Your task to perform on an android device: Open wifi settings Image 0: 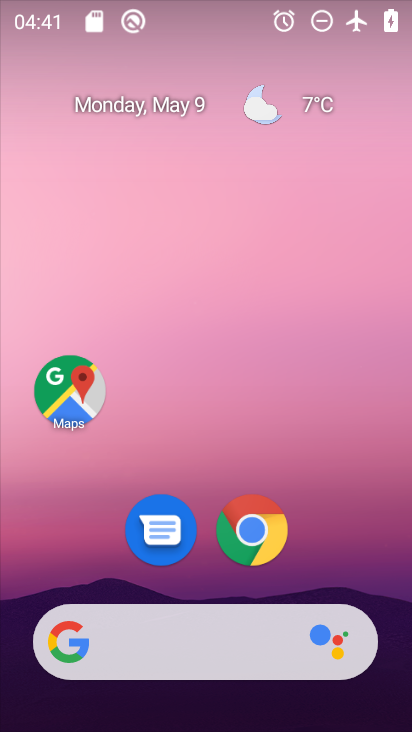
Step 0: drag from (205, 583) to (220, 105)
Your task to perform on an android device: Open wifi settings Image 1: 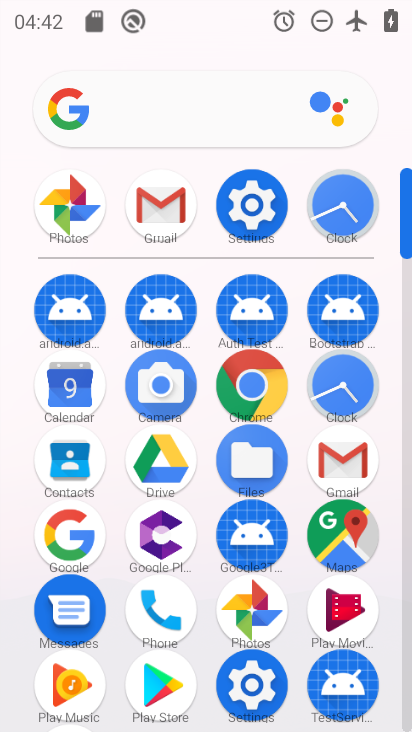
Step 1: click (251, 205)
Your task to perform on an android device: Open wifi settings Image 2: 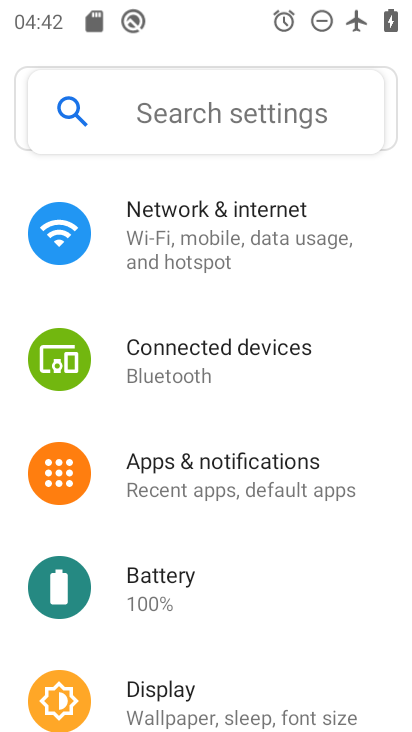
Step 2: click (174, 240)
Your task to perform on an android device: Open wifi settings Image 3: 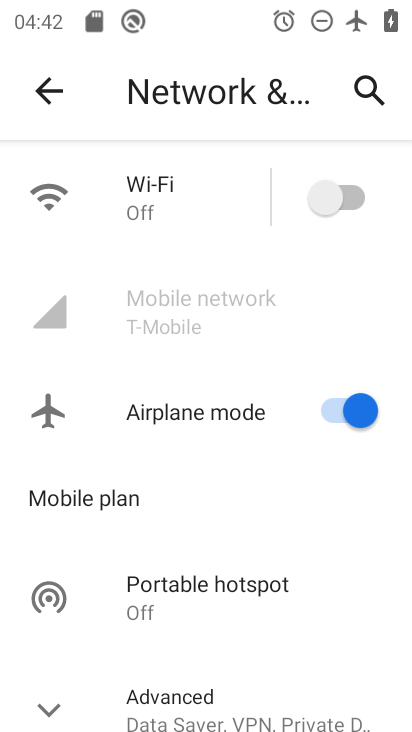
Step 3: click (194, 192)
Your task to perform on an android device: Open wifi settings Image 4: 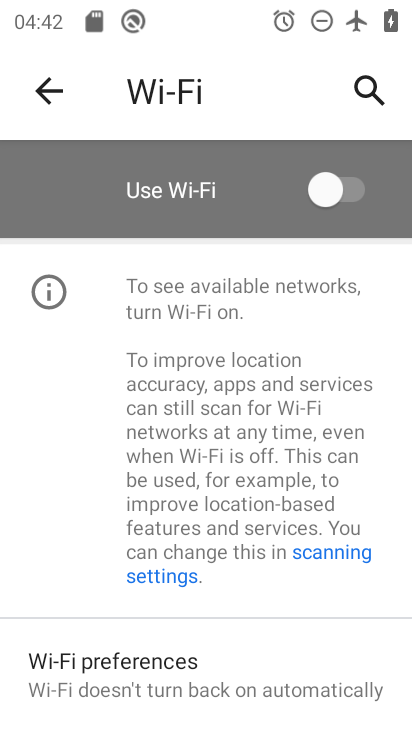
Step 4: click (335, 179)
Your task to perform on an android device: Open wifi settings Image 5: 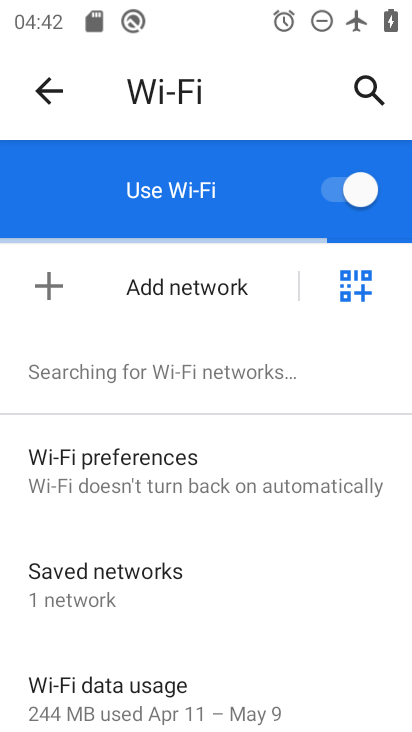
Step 5: task complete